Your task to perform on an android device: Open the calendar and show me this week's events Image 0: 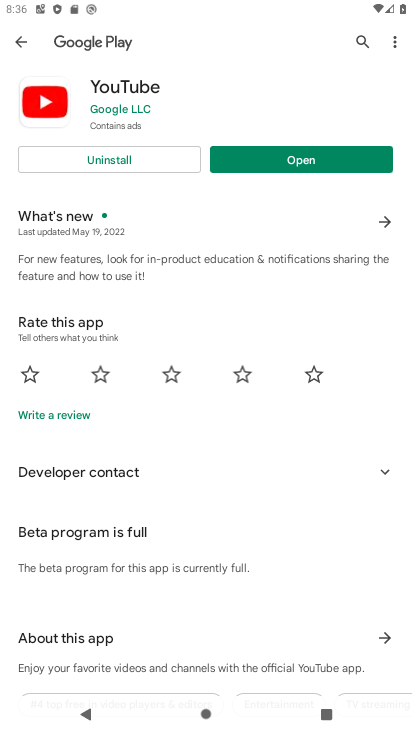
Step 0: press home button
Your task to perform on an android device: Open the calendar and show me this week's events Image 1: 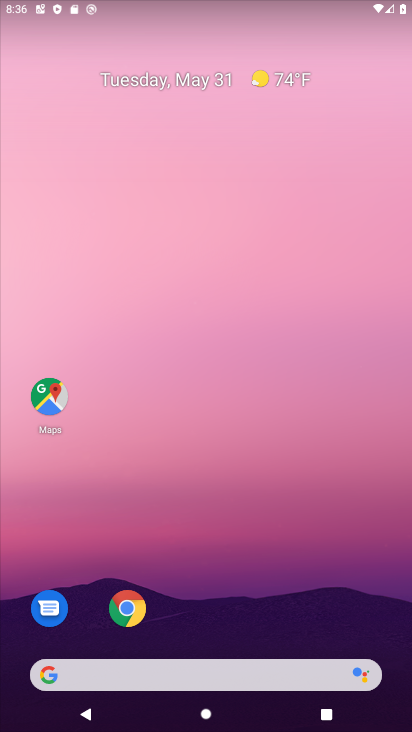
Step 1: drag from (230, 649) to (116, 29)
Your task to perform on an android device: Open the calendar and show me this week's events Image 2: 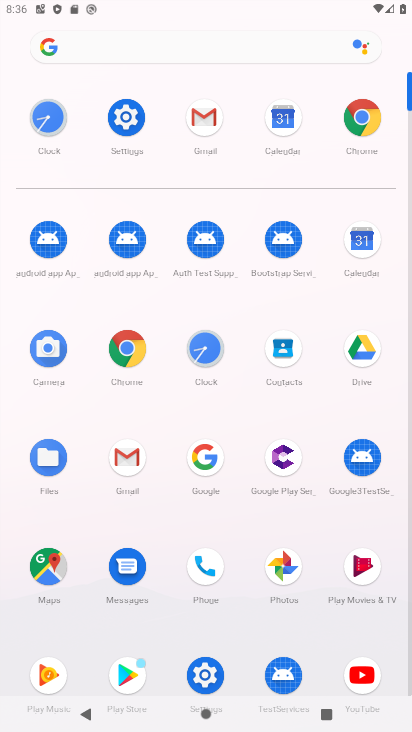
Step 2: click (349, 231)
Your task to perform on an android device: Open the calendar and show me this week's events Image 3: 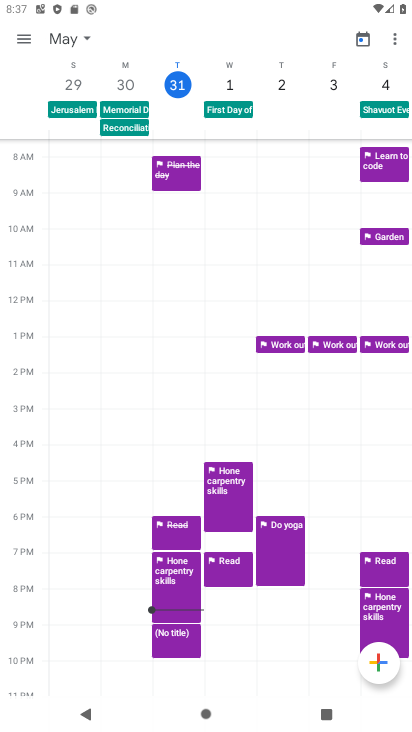
Step 3: task complete